Your task to perform on an android device: turn on notifications settings in the gmail app Image 0: 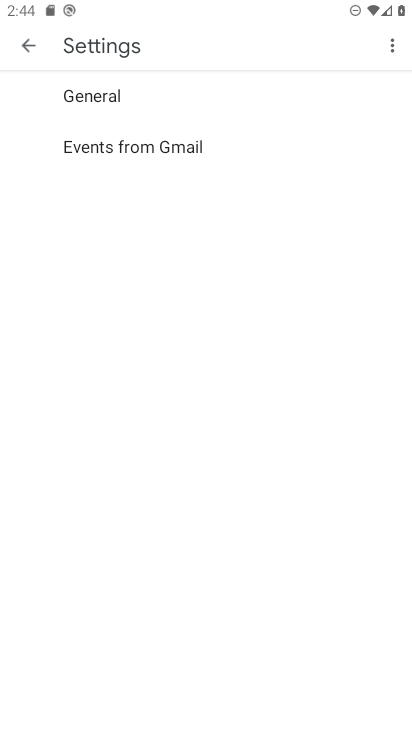
Step 0: press back button
Your task to perform on an android device: turn on notifications settings in the gmail app Image 1: 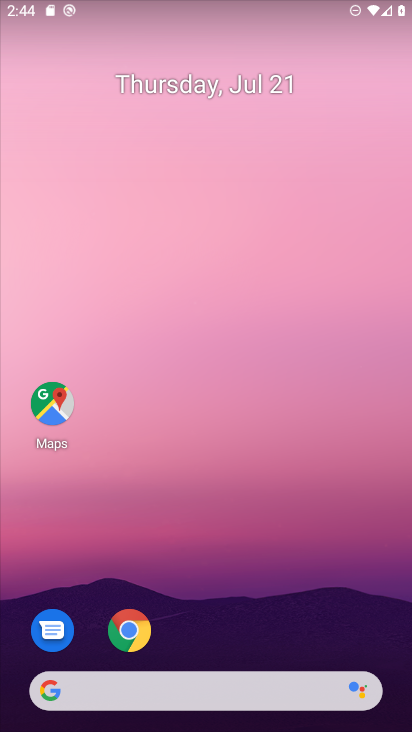
Step 1: drag from (251, 627) to (285, 36)
Your task to perform on an android device: turn on notifications settings in the gmail app Image 2: 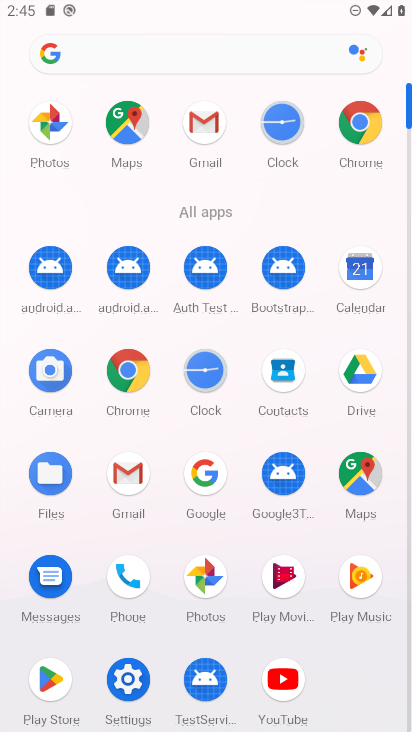
Step 2: click (203, 132)
Your task to perform on an android device: turn on notifications settings in the gmail app Image 3: 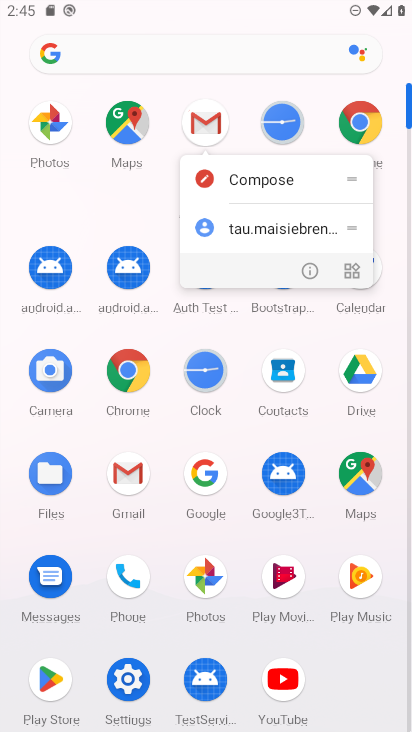
Step 3: click (304, 272)
Your task to perform on an android device: turn on notifications settings in the gmail app Image 4: 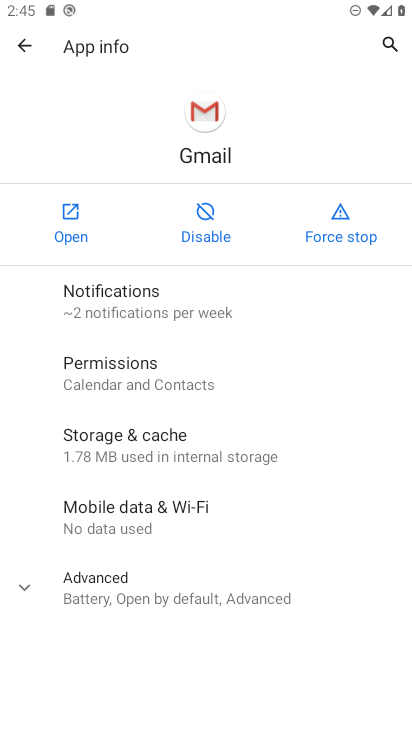
Step 4: click (159, 300)
Your task to perform on an android device: turn on notifications settings in the gmail app Image 5: 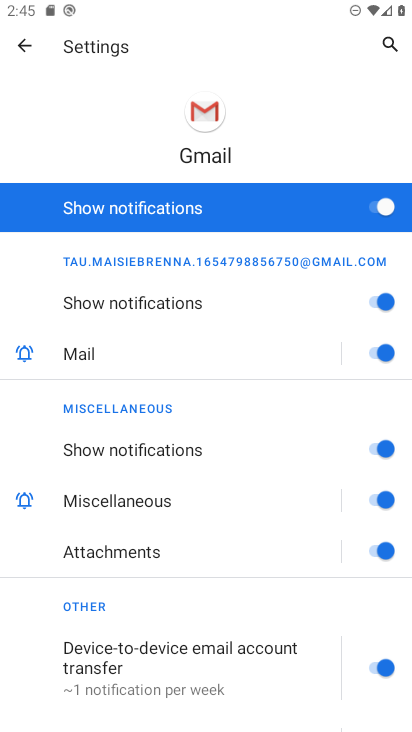
Step 5: task complete